Your task to perform on an android device: change the clock style Image 0: 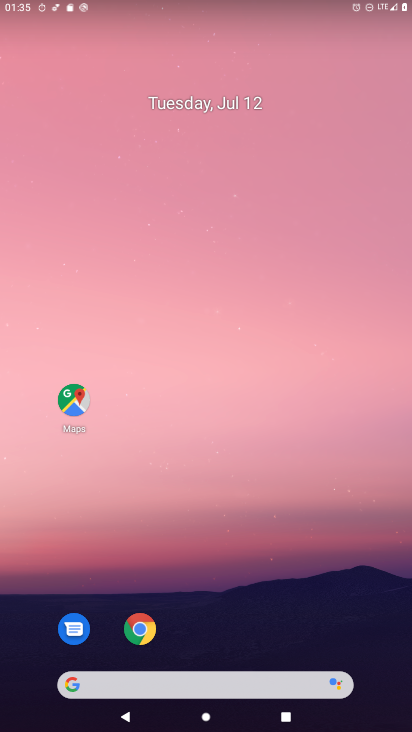
Step 0: drag from (55, 692) to (177, 154)
Your task to perform on an android device: change the clock style Image 1: 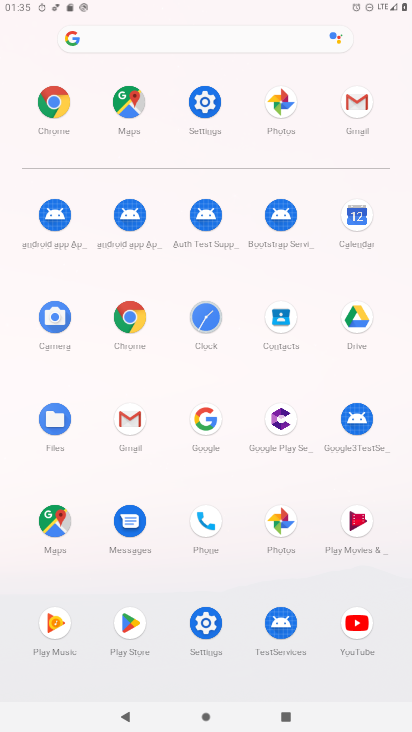
Step 1: click (206, 302)
Your task to perform on an android device: change the clock style Image 2: 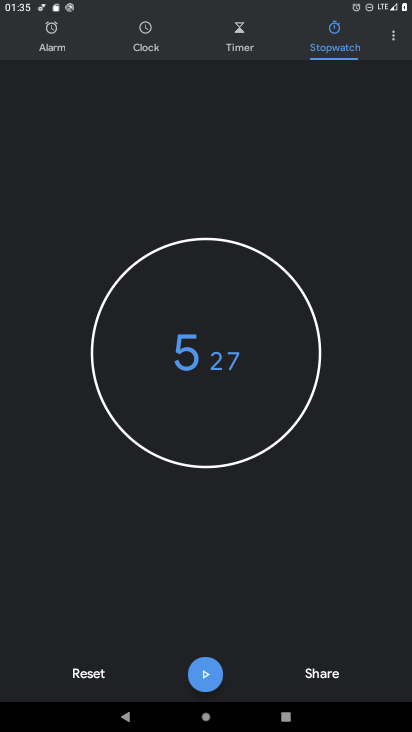
Step 2: click (139, 33)
Your task to perform on an android device: change the clock style Image 3: 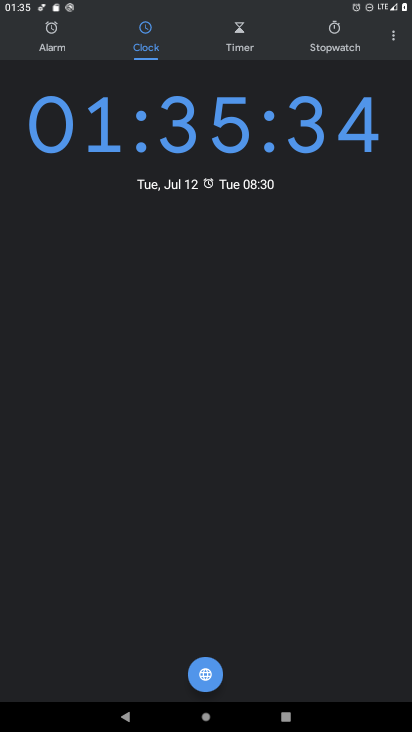
Step 3: click (403, 35)
Your task to perform on an android device: change the clock style Image 4: 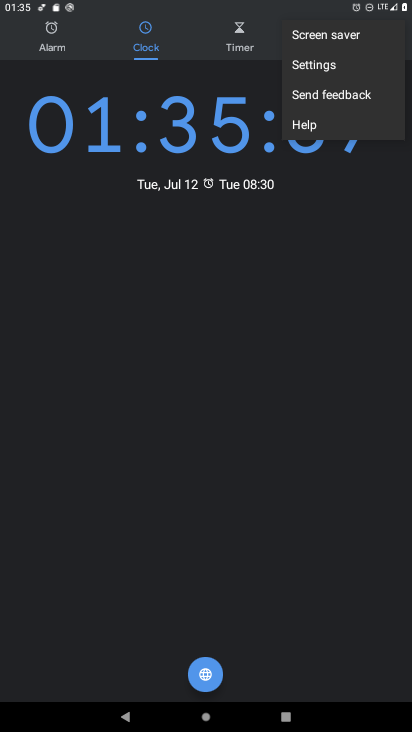
Step 4: click (328, 67)
Your task to perform on an android device: change the clock style Image 5: 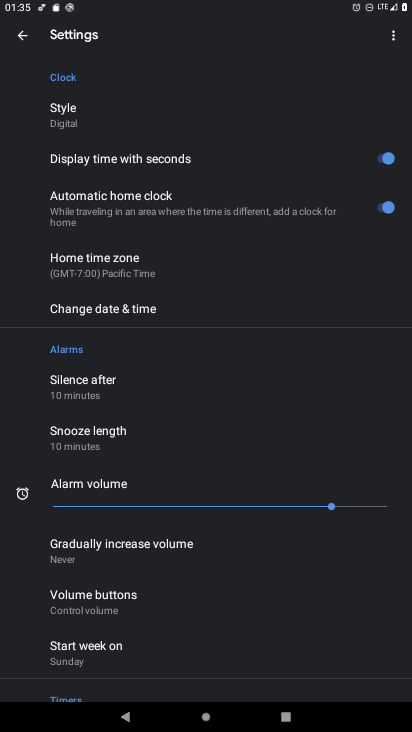
Step 5: click (73, 115)
Your task to perform on an android device: change the clock style Image 6: 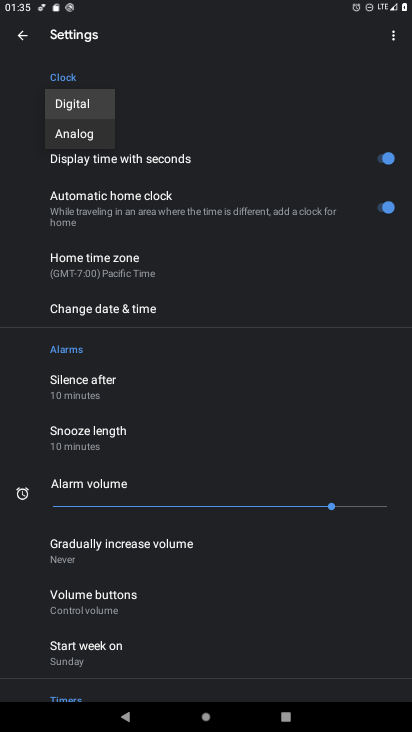
Step 6: click (76, 128)
Your task to perform on an android device: change the clock style Image 7: 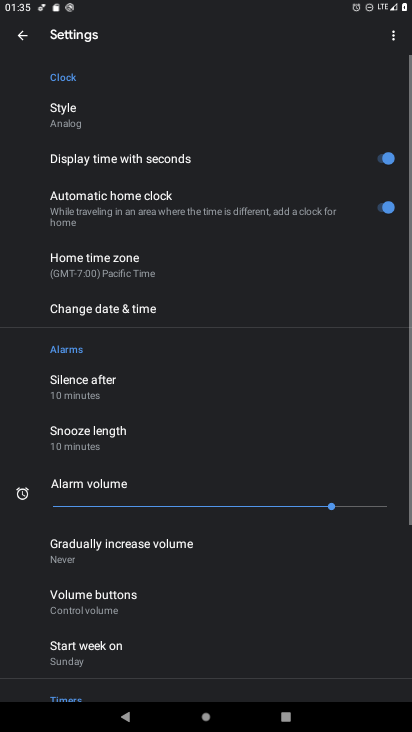
Step 7: click (29, 49)
Your task to perform on an android device: change the clock style Image 8: 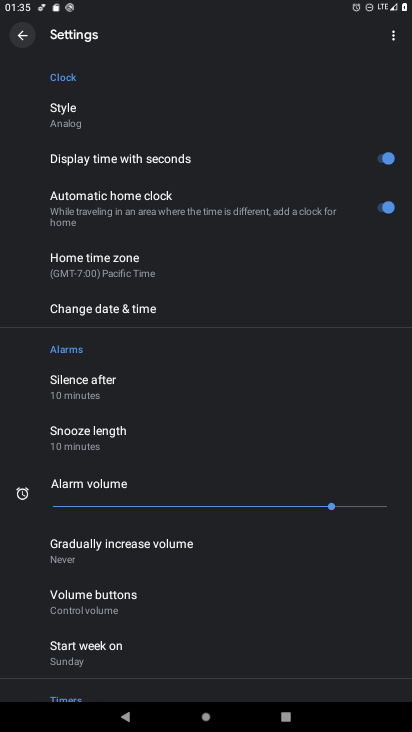
Step 8: click (23, 34)
Your task to perform on an android device: change the clock style Image 9: 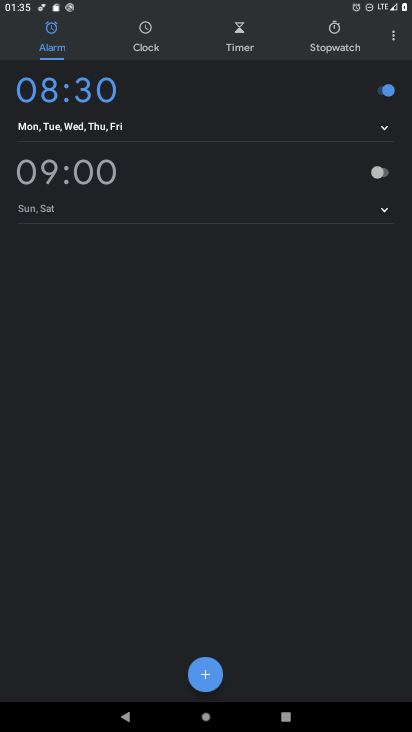
Step 9: click (133, 33)
Your task to perform on an android device: change the clock style Image 10: 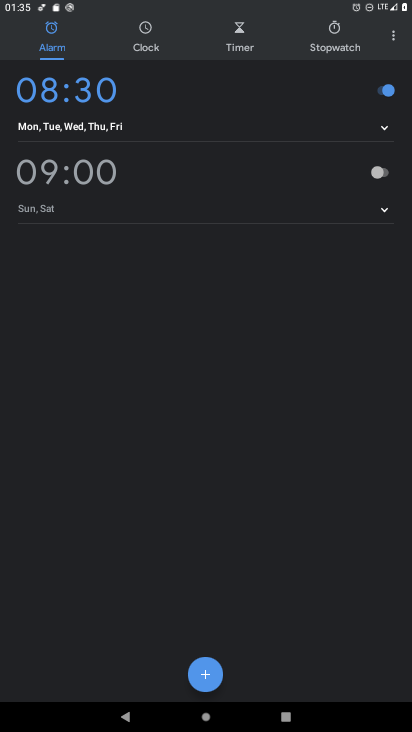
Step 10: click (152, 43)
Your task to perform on an android device: change the clock style Image 11: 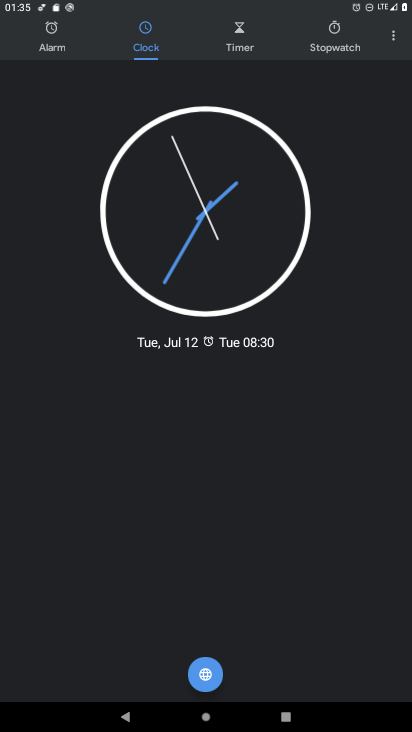
Step 11: task complete